Your task to perform on an android device: toggle improve location accuracy Image 0: 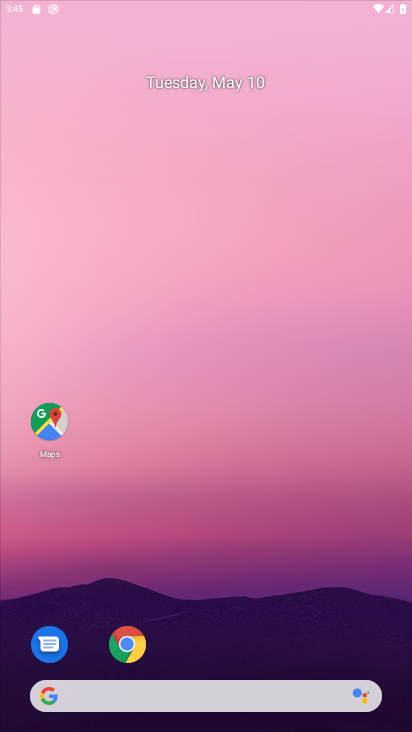
Step 0: click (285, 22)
Your task to perform on an android device: toggle improve location accuracy Image 1: 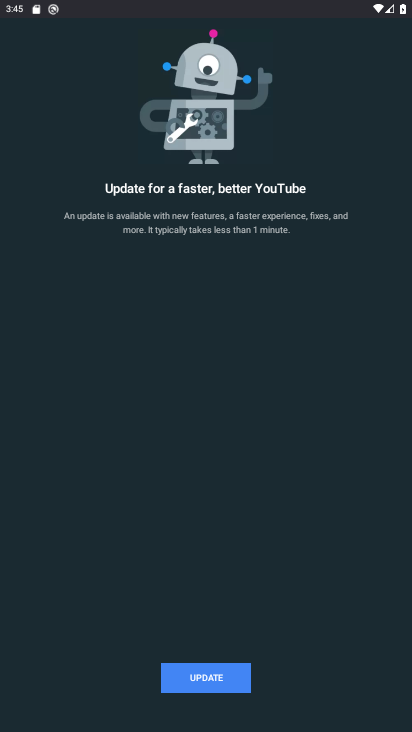
Step 1: press home button
Your task to perform on an android device: toggle improve location accuracy Image 2: 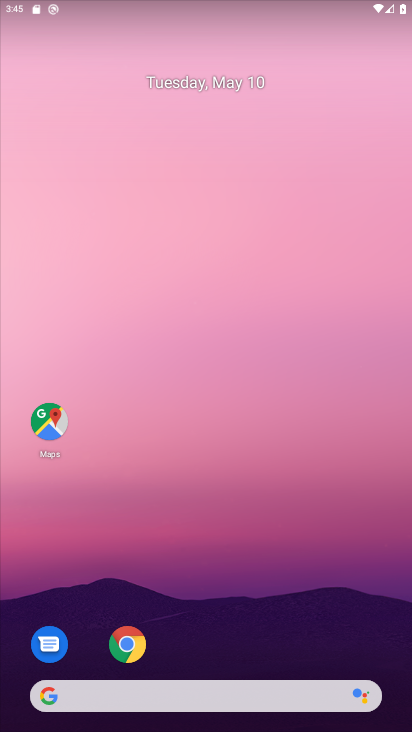
Step 2: drag from (207, 654) to (275, 13)
Your task to perform on an android device: toggle improve location accuracy Image 3: 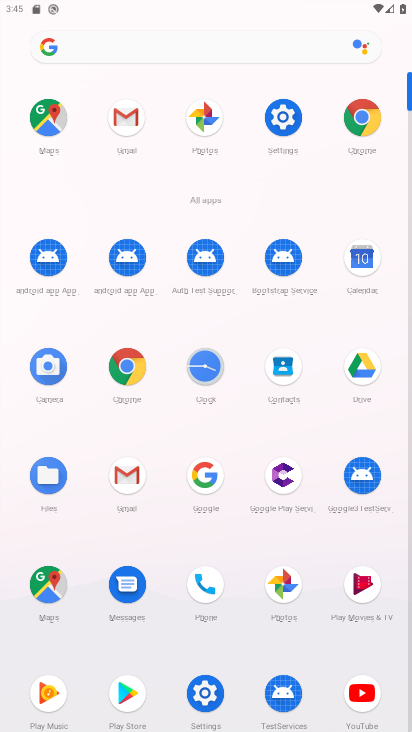
Step 3: click (280, 120)
Your task to perform on an android device: toggle improve location accuracy Image 4: 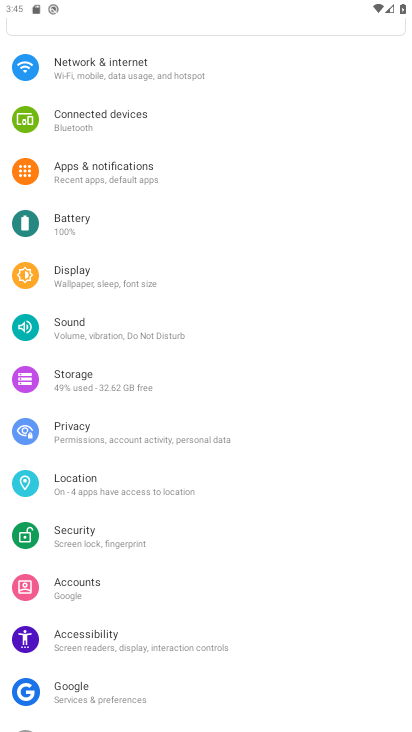
Step 4: click (108, 477)
Your task to perform on an android device: toggle improve location accuracy Image 5: 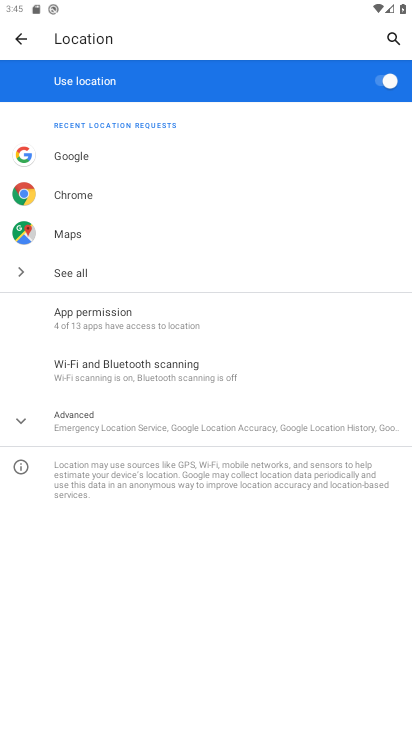
Step 5: click (83, 413)
Your task to perform on an android device: toggle improve location accuracy Image 6: 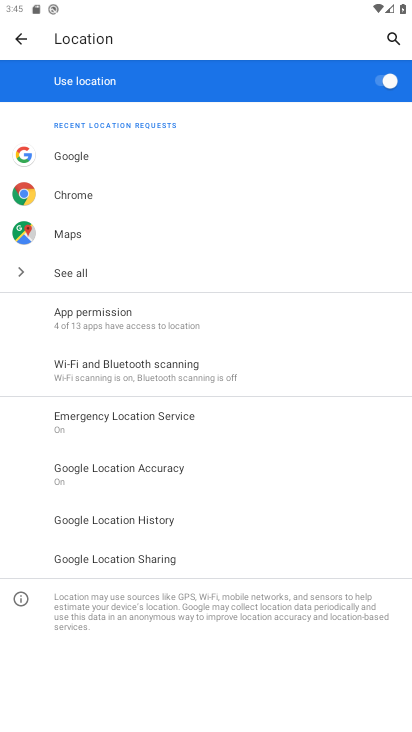
Step 6: click (191, 466)
Your task to perform on an android device: toggle improve location accuracy Image 7: 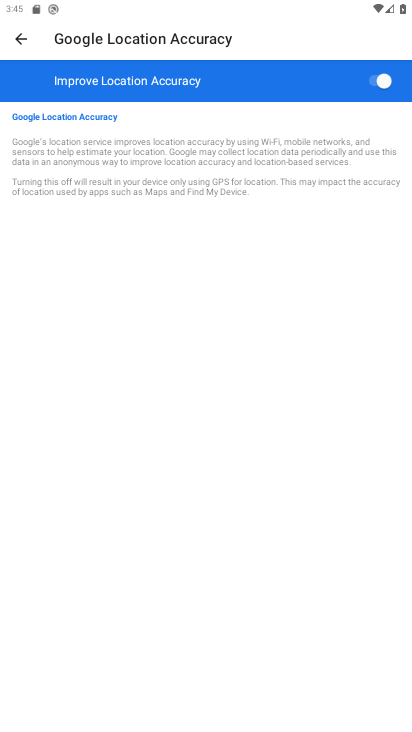
Step 7: click (373, 78)
Your task to perform on an android device: toggle improve location accuracy Image 8: 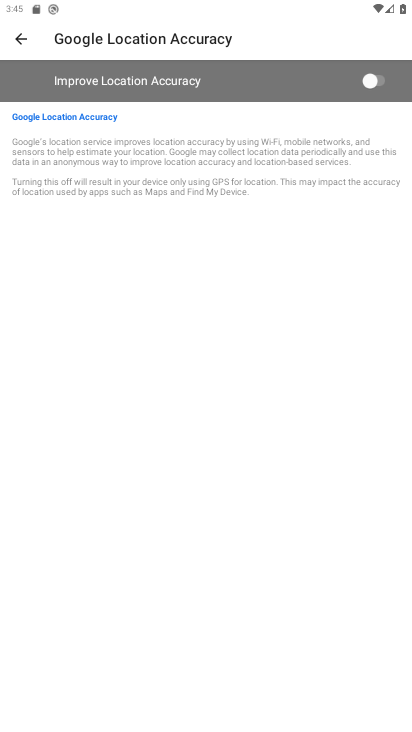
Step 8: task complete